Your task to perform on an android device: What is the news today? Image 0: 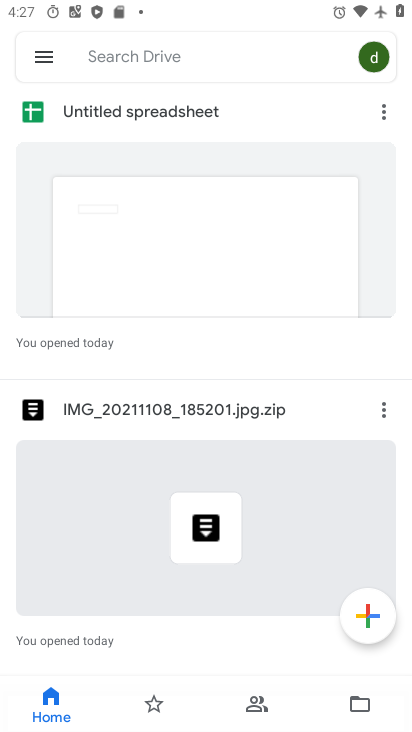
Step 0: press back button
Your task to perform on an android device: What is the news today? Image 1: 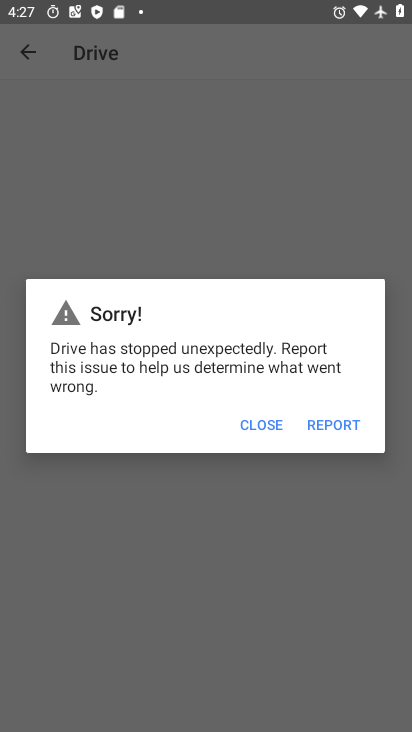
Step 1: press home button
Your task to perform on an android device: What is the news today? Image 2: 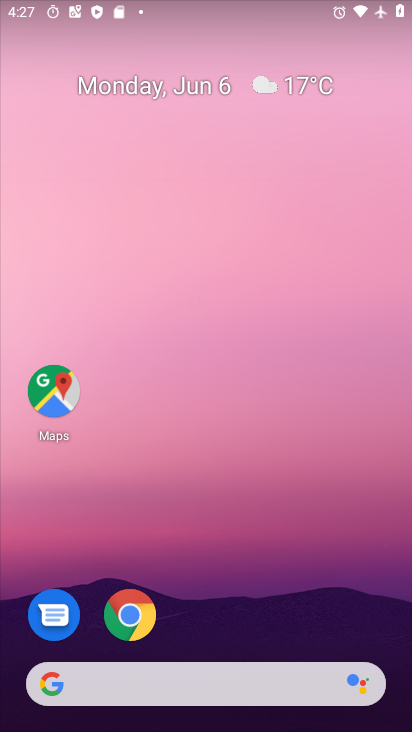
Step 2: drag from (229, 604) to (228, 49)
Your task to perform on an android device: What is the news today? Image 3: 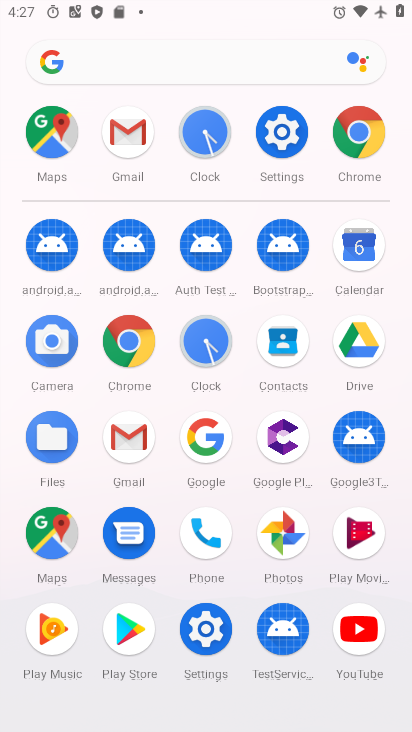
Step 3: click (127, 344)
Your task to perform on an android device: What is the news today? Image 4: 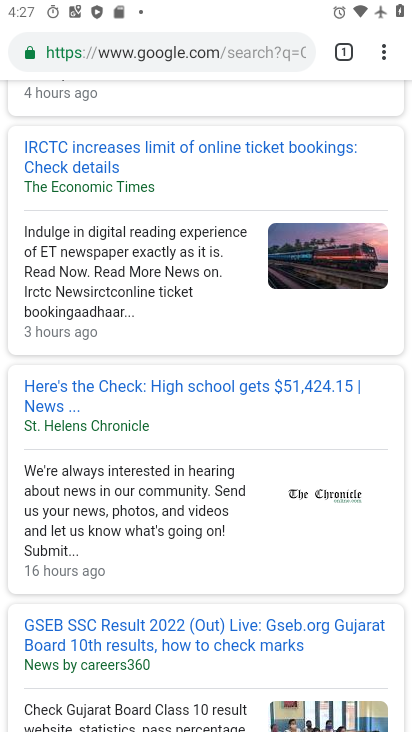
Step 4: click (185, 51)
Your task to perform on an android device: What is the news today? Image 5: 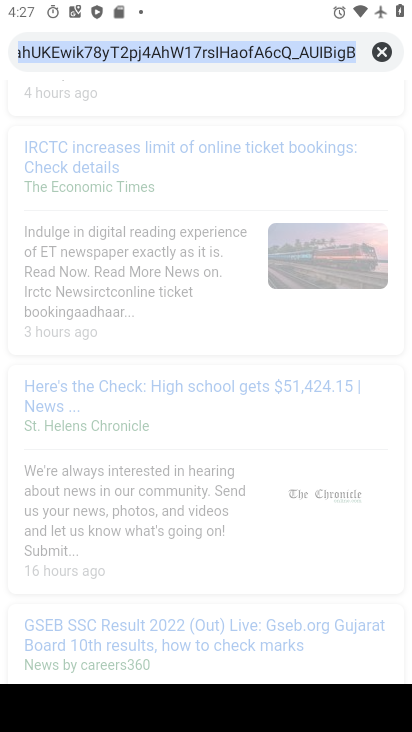
Step 5: click (382, 54)
Your task to perform on an android device: What is the news today? Image 6: 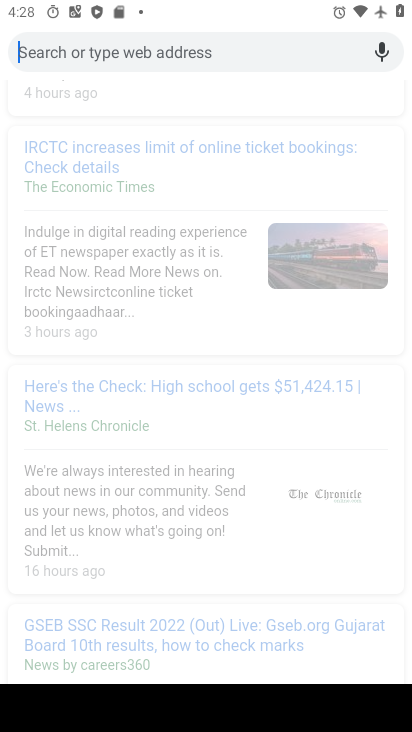
Step 6: type "What is the news today"
Your task to perform on an android device: What is the news today? Image 7: 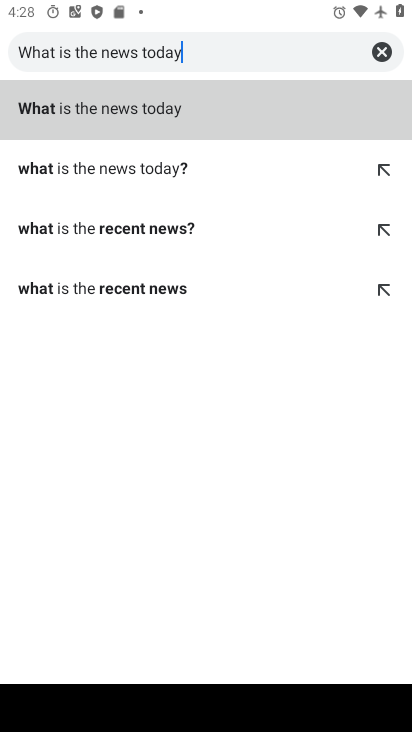
Step 7: type ""
Your task to perform on an android device: What is the news today? Image 8: 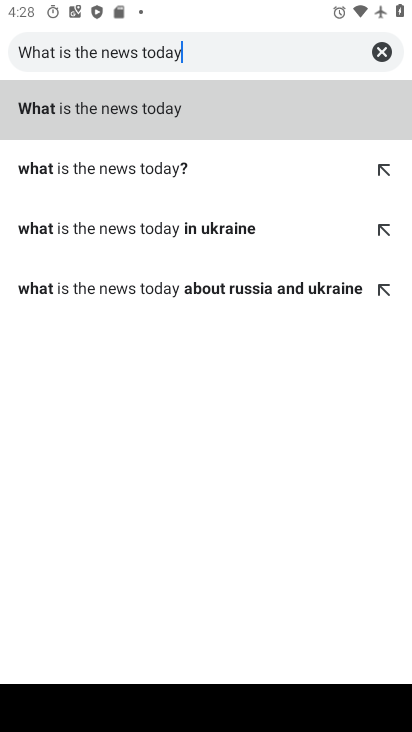
Step 8: click (184, 113)
Your task to perform on an android device: What is the news today? Image 9: 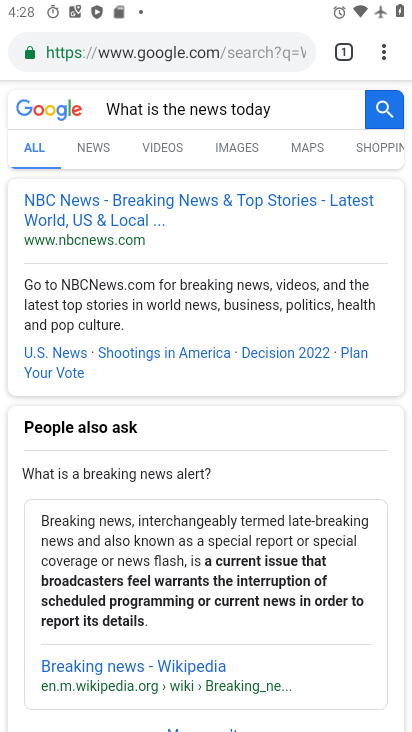
Step 9: click (99, 144)
Your task to perform on an android device: What is the news today? Image 10: 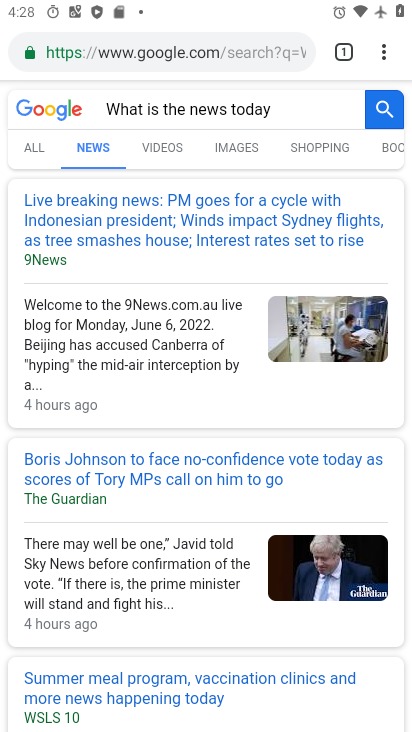
Step 10: task complete